Your task to perform on an android device: Go to Android settings Image 0: 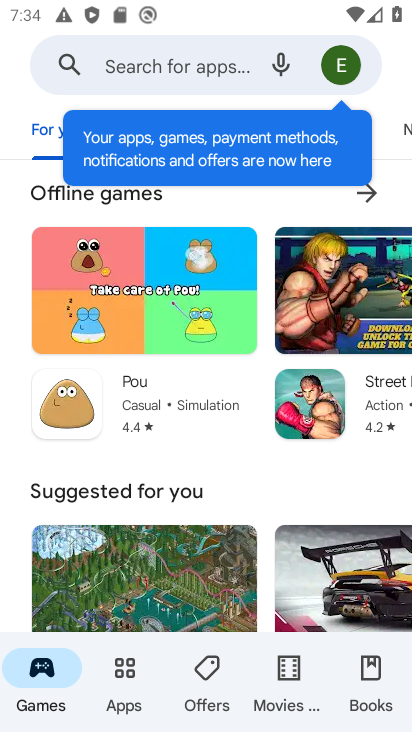
Step 0: press home button
Your task to perform on an android device: Go to Android settings Image 1: 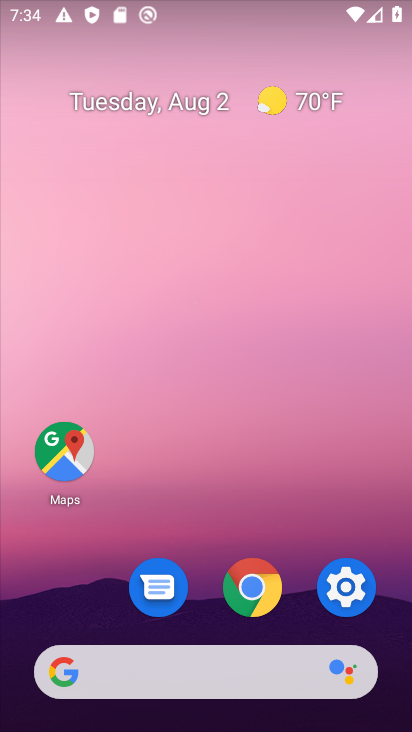
Step 1: click (366, 584)
Your task to perform on an android device: Go to Android settings Image 2: 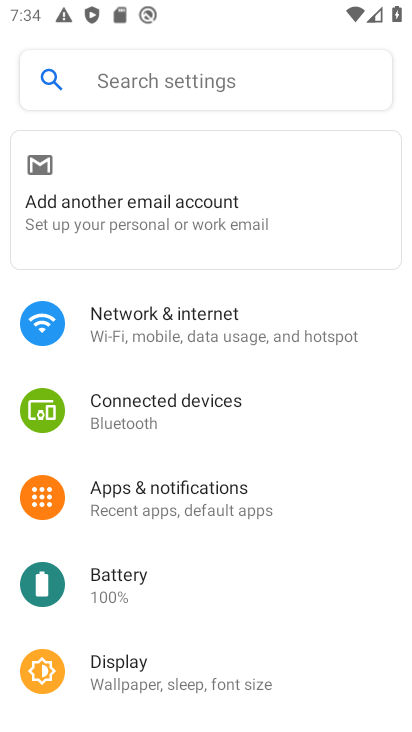
Step 2: click (138, 86)
Your task to perform on an android device: Go to Android settings Image 3: 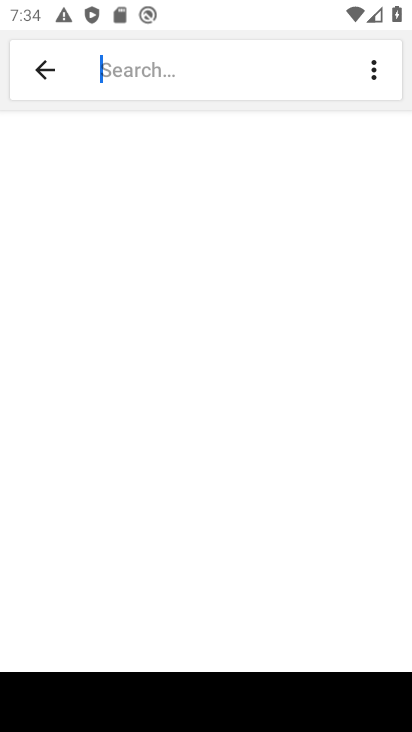
Step 3: drag from (380, 701) to (334, 560)
Your task to perform on an android device: Go to Android settings Image 4: 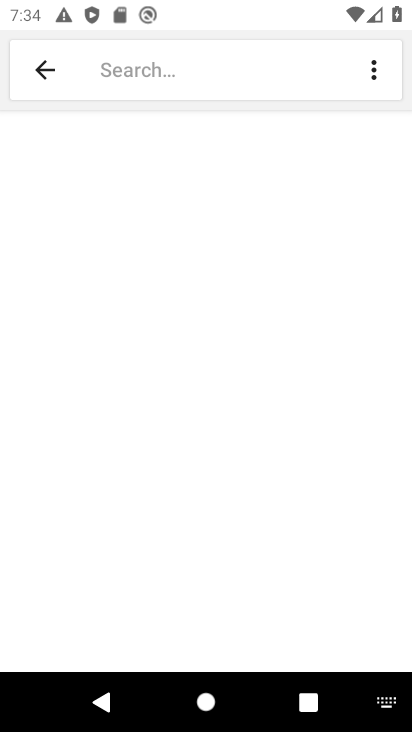
Step 4: click (389, 705)
Your task to perform on an android device: Go to Android settings Image 5: 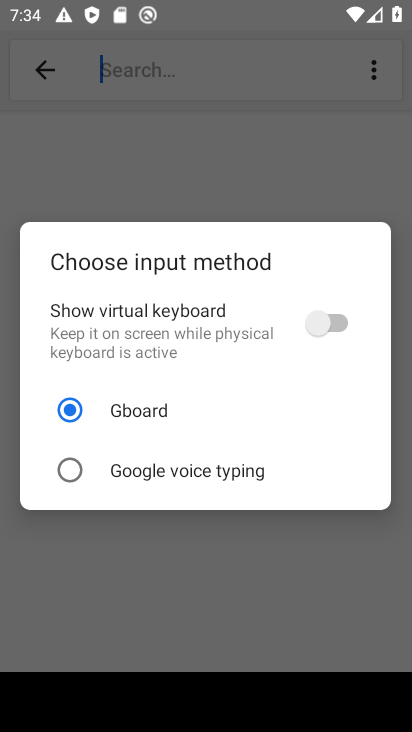
Step 5: click (329, 313)
Your task to perform on an android device: Go to Android settings Image 6: 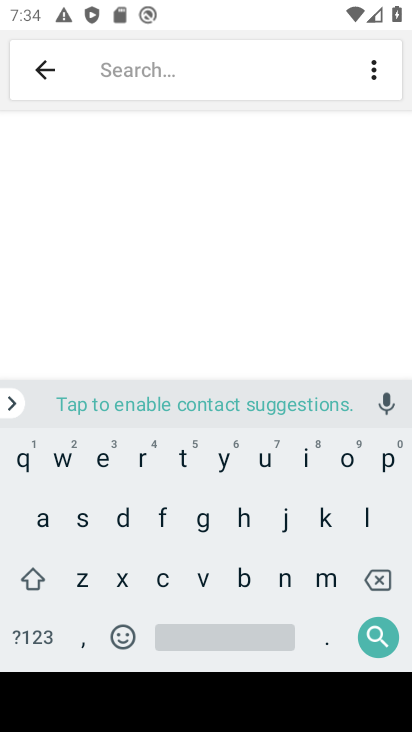
Step 6: click (30, 510)
Your task to perform on an android device: Go to Android settings Image 7: 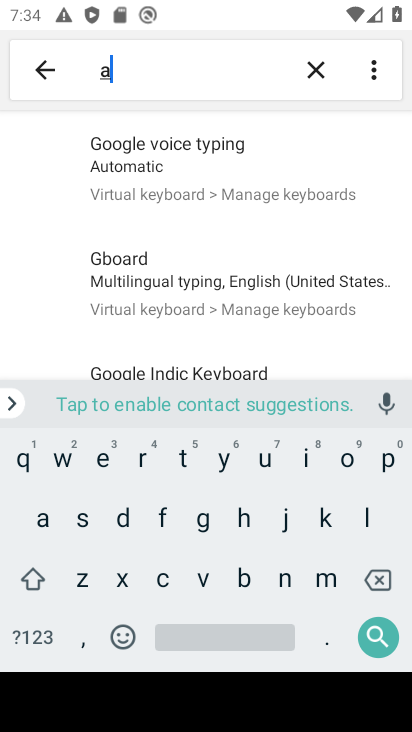
Step 7: click (285, 571)
Your task to perform on an android device: Go to Android settings Image 8: 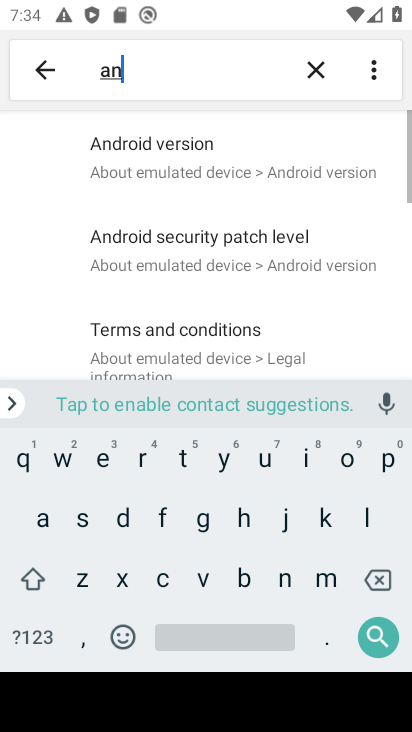
Step 8: click (161, 146)
Your task to perform on an android device: Go to Android settings Image 9: 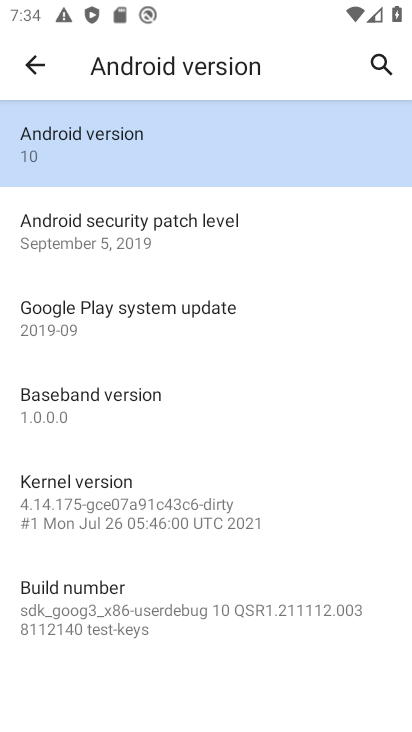
Step 9: click (163, 151)
Your task to perform on an android device: Go to Android settings Image 10: 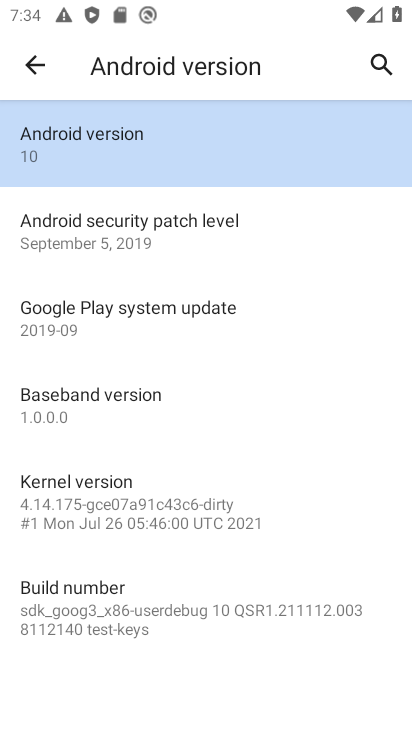
Step 10: task complete